Your task to perform on an android device: open app "Microsoft Authenticator" (install if not already installed), go to login, and select forgot password Image 0: 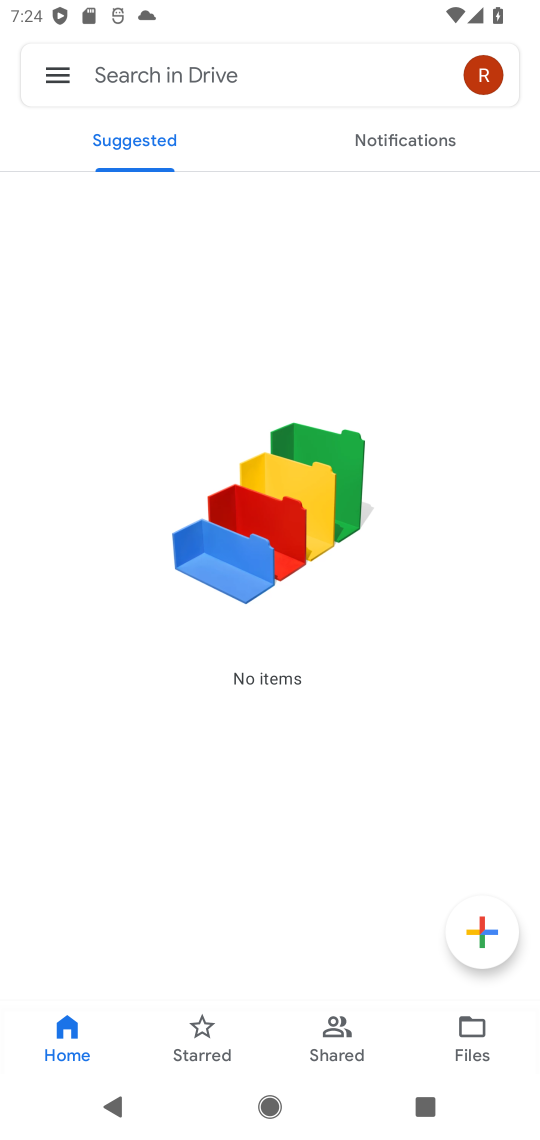
Step 0: press home button
Your task to perform on an android device: open app "Microsoft Authenticator" (install if not already installed), go to login, and select forgot password Image 1: 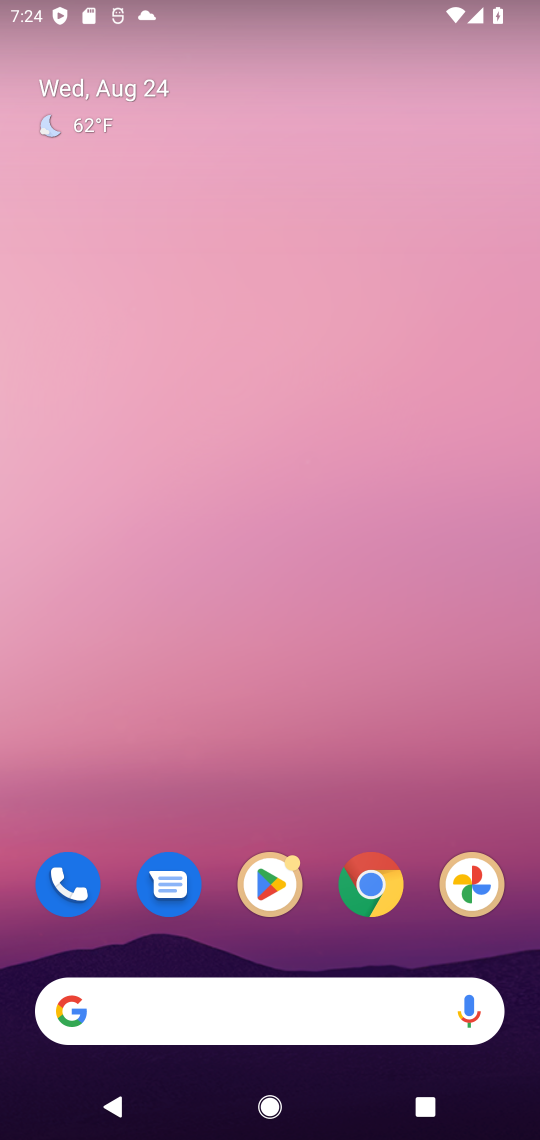
Step 1: click (267, 883)
Your task to perform on an android device: open app "Microsoft Authenticator" (install if not already installed), go to login, and select forgot password Image 2: 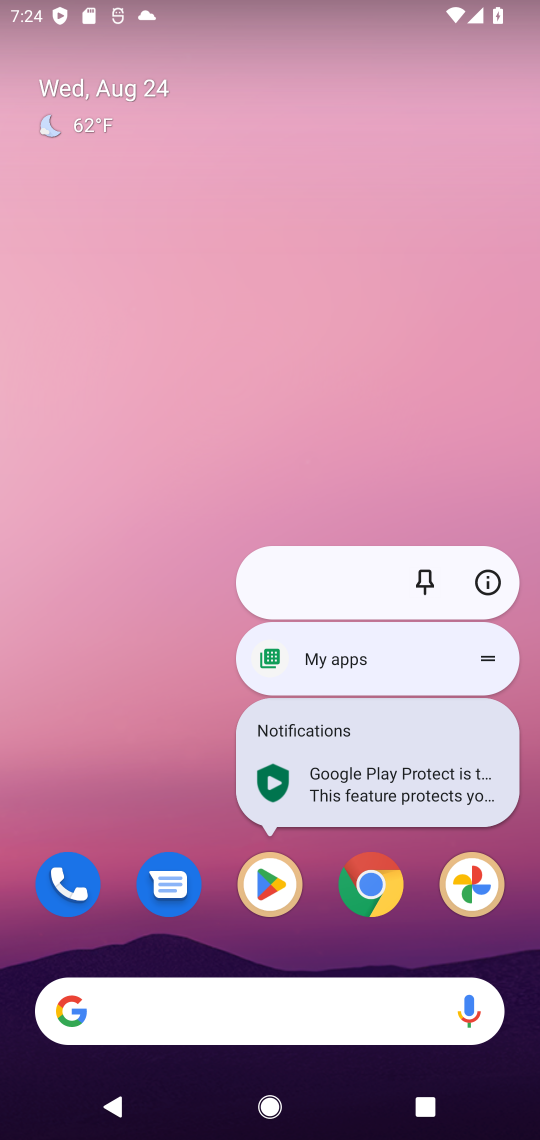
Step 2: click (267, 884)
Your task to perform on an android device: open app "Microsoft Authenticator" (install if not already installed), go to login, and select forgot password Image 3: 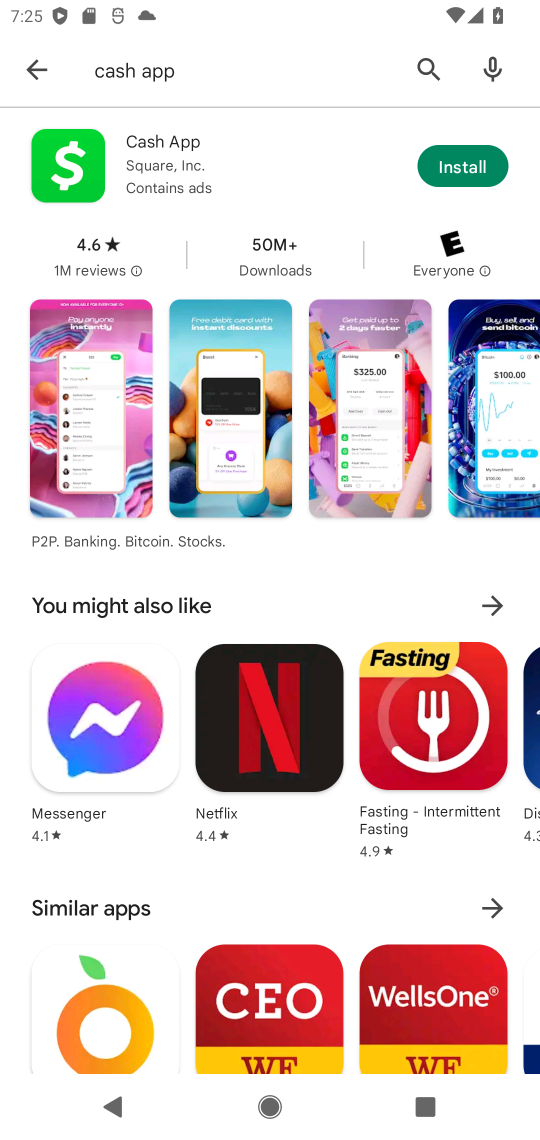
Step 3: click (435, 64)
Your task to perform on an android device: open app "Microsoft Authenticator" (install if not already installed), go to login, and select forgot password Image 4: 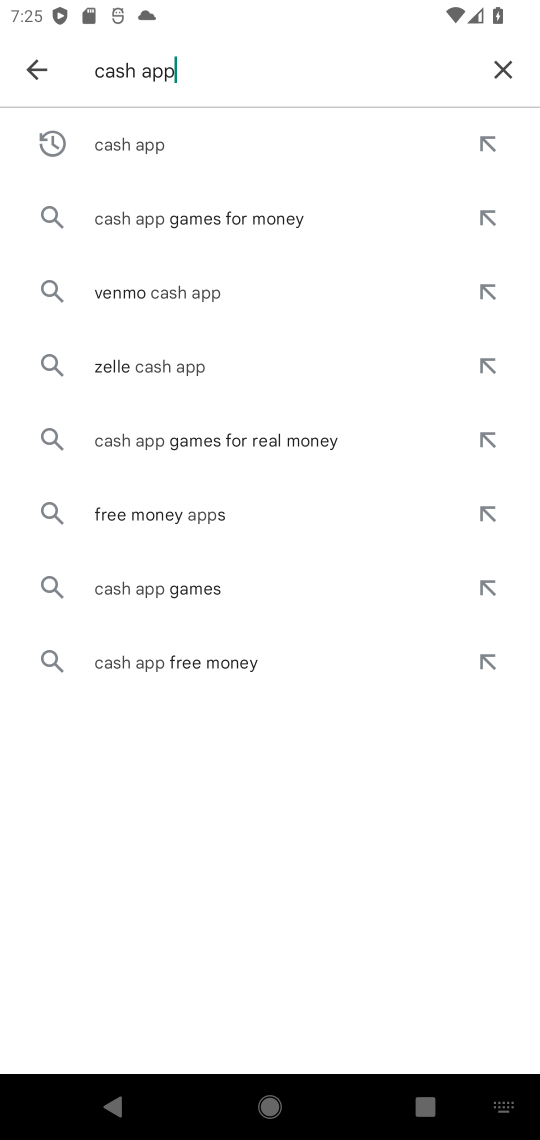
Step 4: click (506, 69)
Your task to perform on an android device: open app "Microsoft Authenticator" (install if not already installed), go to login, and select forgot password Image 5: 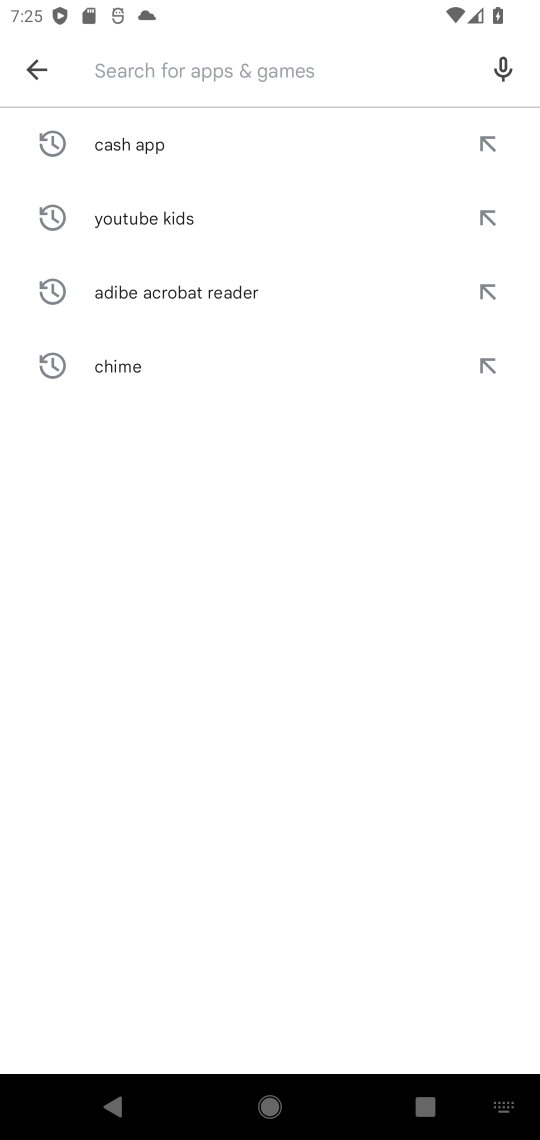
Step 5: type "Microsoft Authenticator"
Your task to perform on an android device: open app "Microsoft Authenticator" (install if not already installed), go to login, and select forgot password Image 6: 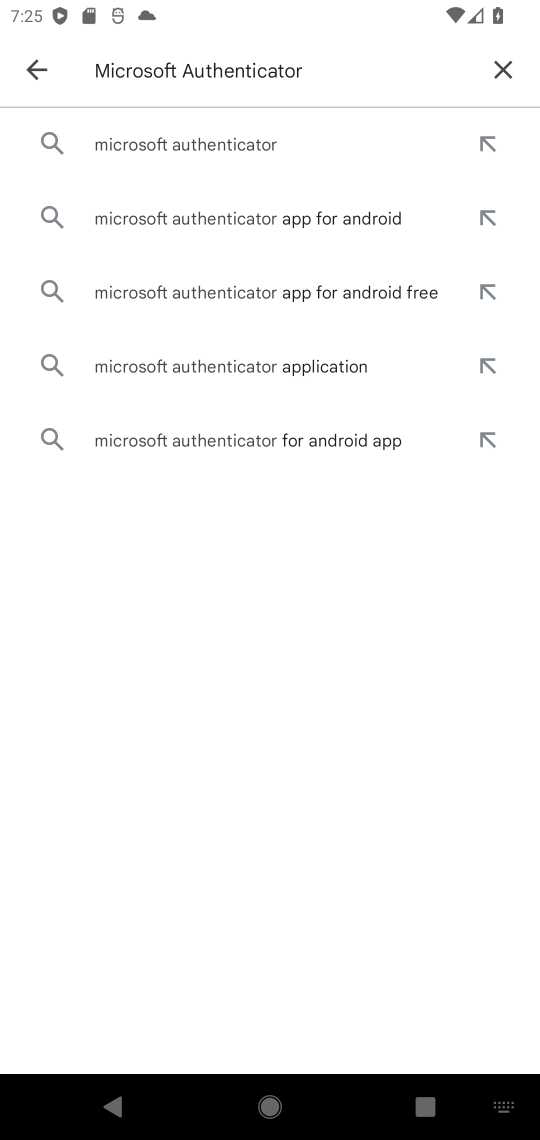
Step 6: click (277, 140)
Your task to perform on an android device: open app "Microsoft Authenticator" (install if not already installed), go to login, and select forgot password Image 7: 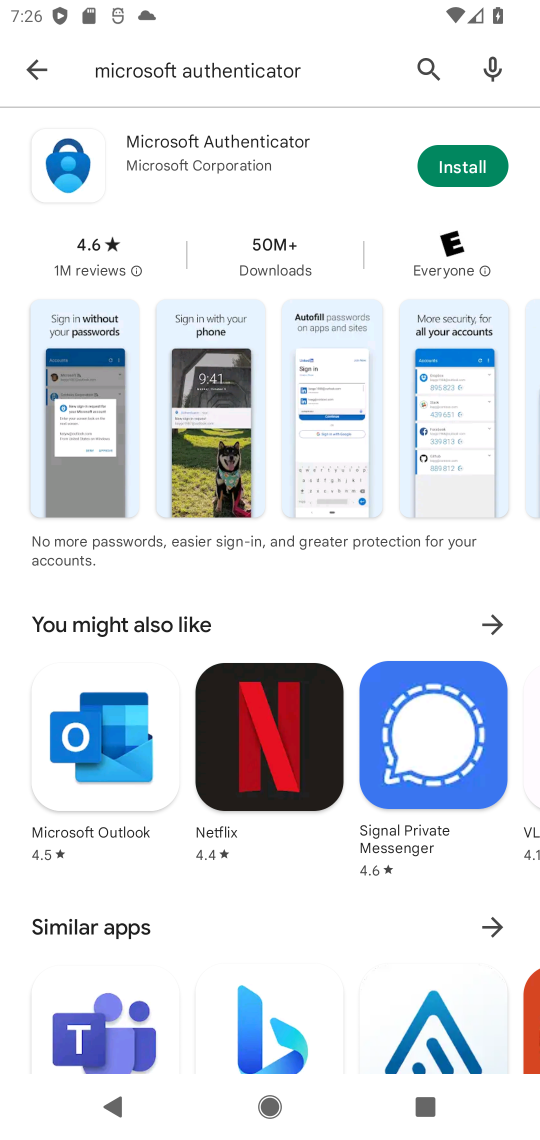
Step 7: click (435, 167)
Your task to perform on an android device: open app "Microsoft Authenticator" (install if not already installed), go to login, and select forgot password Image 8: 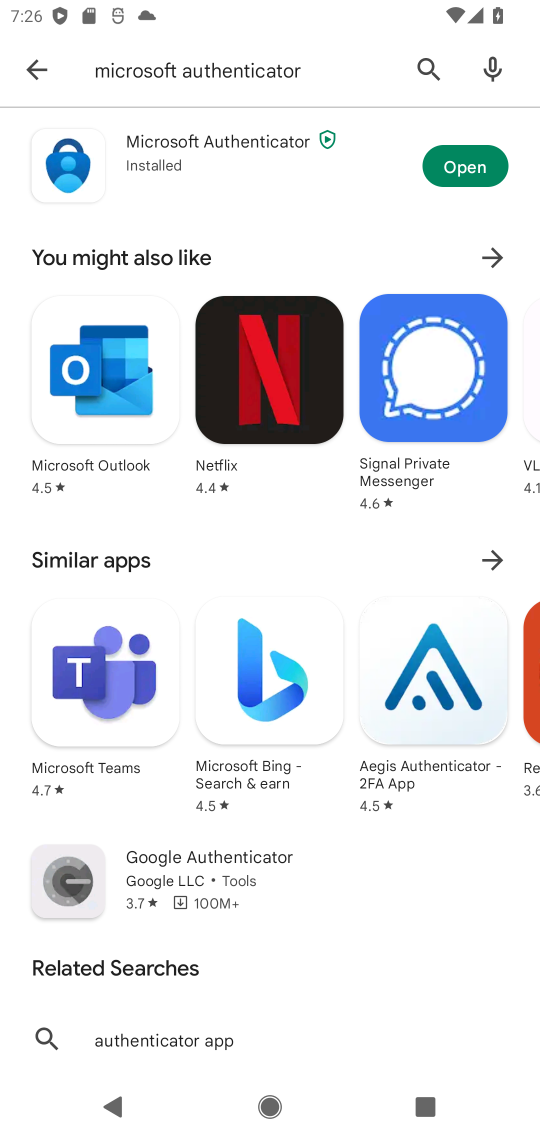
Step 8: click (450, 168)
Your task to perform on an android device: open app "Microsoft Authenticator" (install if not already installed), go to login, and select forgot password Image 9: 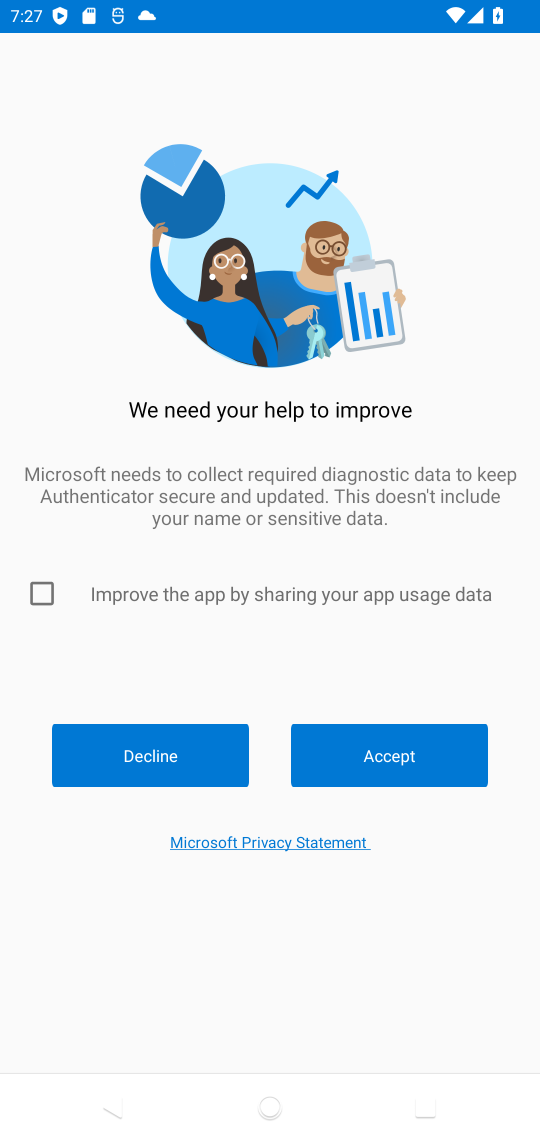
Step 9: click (53, 600)
Your task to perform on an android device: open app "Microsoft Authenticator" (install if not already installed), go to login, and select forgot password Image 10: 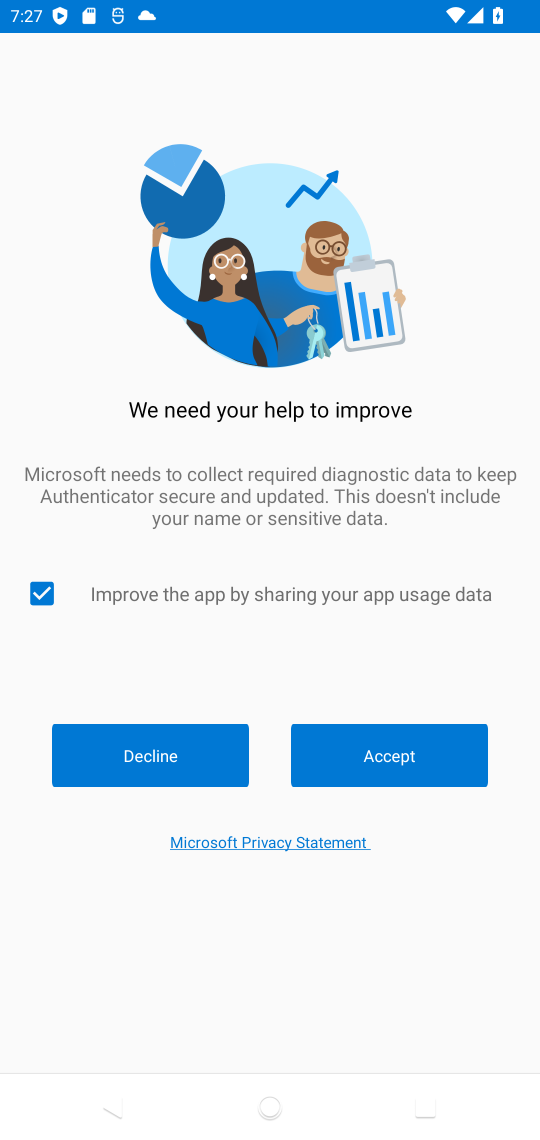
Step 10: click (369, 764)
Your task to perform on an android device: open app "Microsoft Authenticator" (install if not already installed), go to login, and select forgot password Image 11: 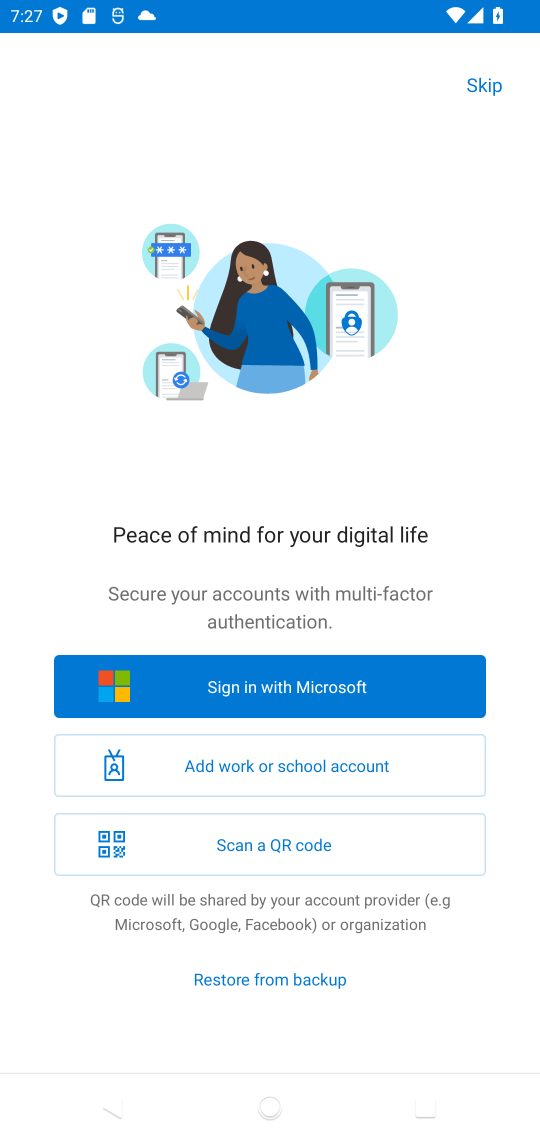
Step 11: click (292, 699)
Your task to perform on an android device: open app "Microsoft Authenticator" (install if not already installed), go to login, and select forgot password Image 12: 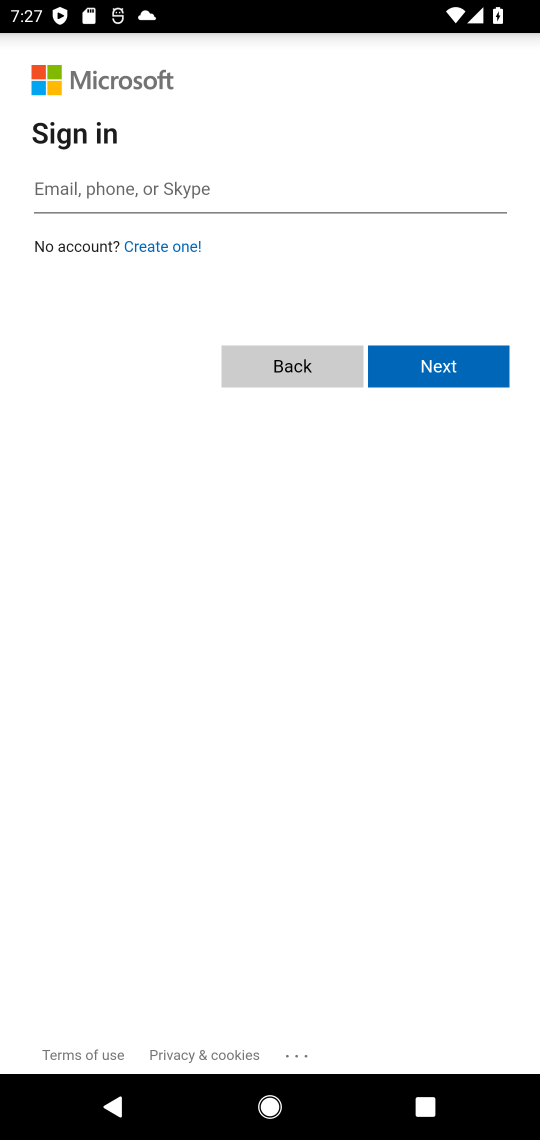
Step 12: task complete